Your task to perform on an android device: toggle javascript in the chrome app Image 0: 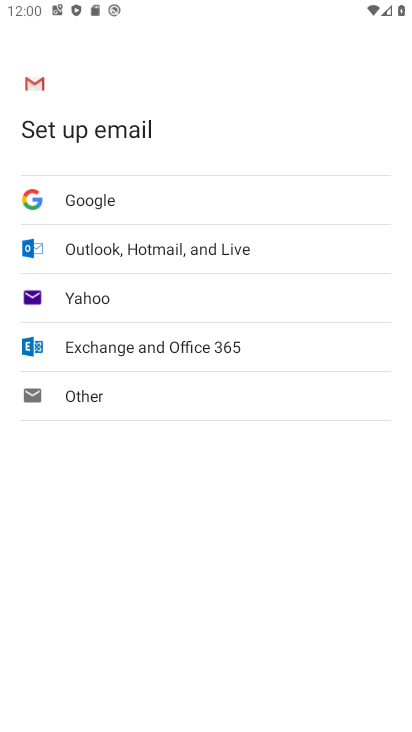
Step 0: press home button
Your task to perform on an android device: toggle javascript in the chrome app Image 1: 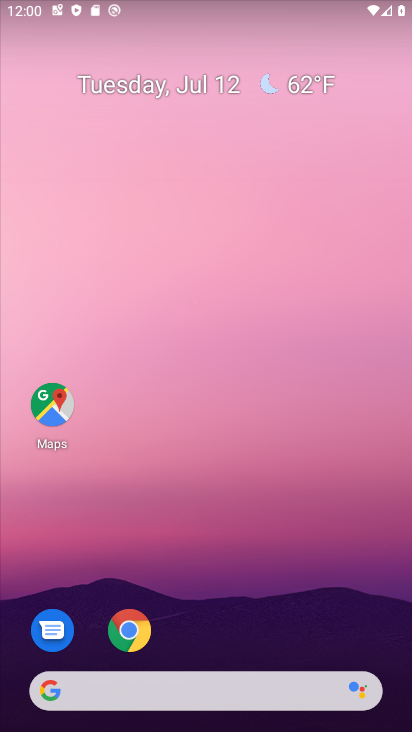
Step 1: drag from (276, 688) to (368, 0)
Your task to perform on an android device: toggle javascript in the chrome app Image 2: 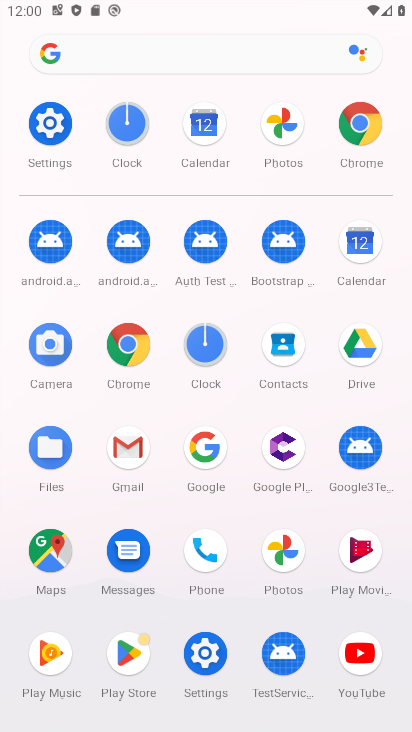
Step 2: click (140, 342)
Your task to perform on an android device: toggle javascript in the chrome app Image 3: 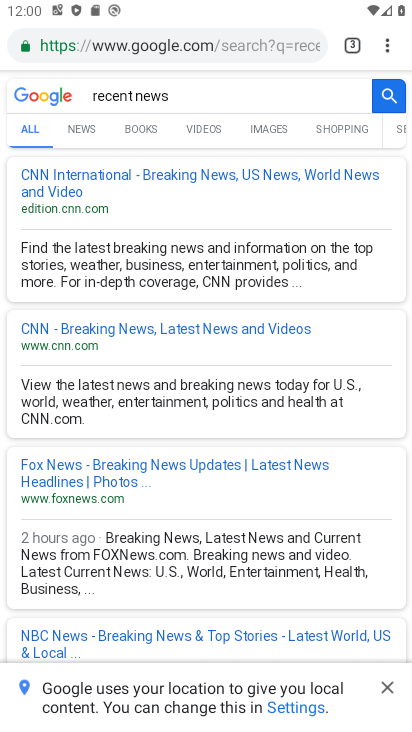
Step 3: drag from (388, 50) to (253, 505)
Your task to perform on an android device: toggle javascript in the chrome app Image 4: 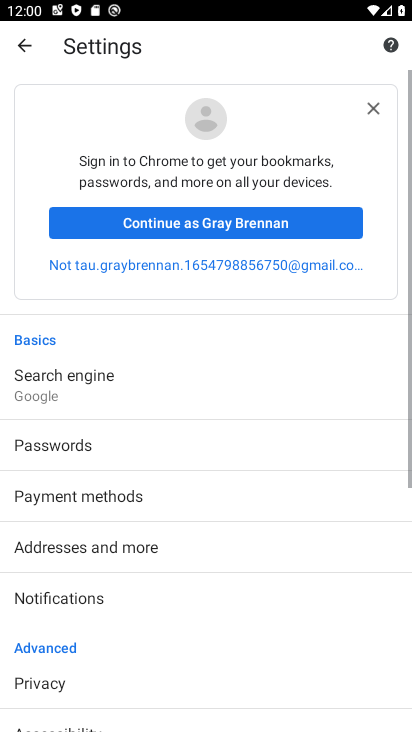
Step 4: drag from (94, 681) to (199, 148)
Your task to perform on an android device: toggle javascript in the chrome app Image 5: 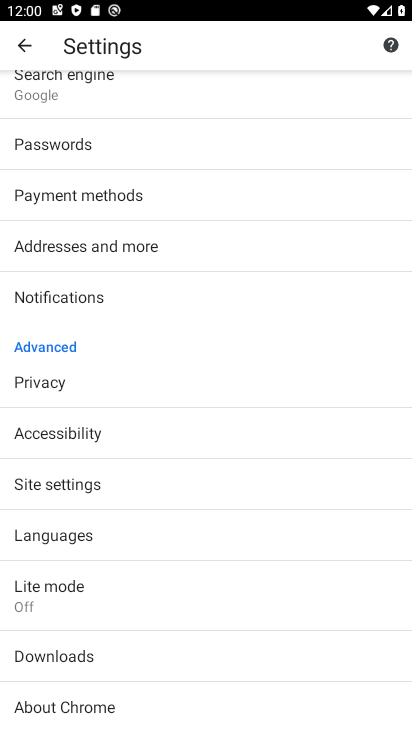
Step 5: click (92, 487)
Your task to perform on an android device: toggle javascript in the chrome app Image 6: 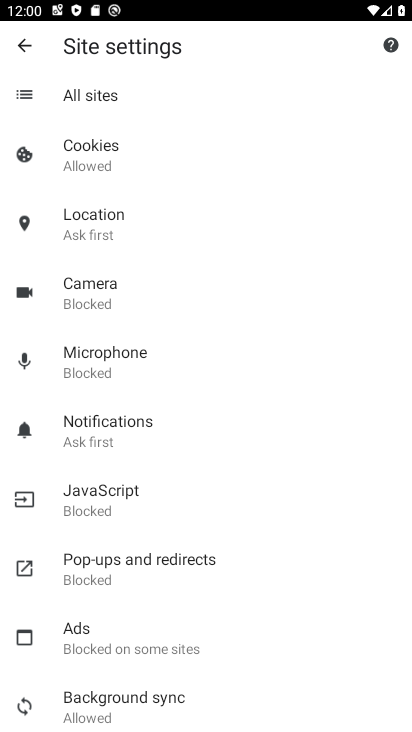
Step 6: click (129, 505)
Your task to perform on an android device: toggle javascript in the chrome app Image 7: 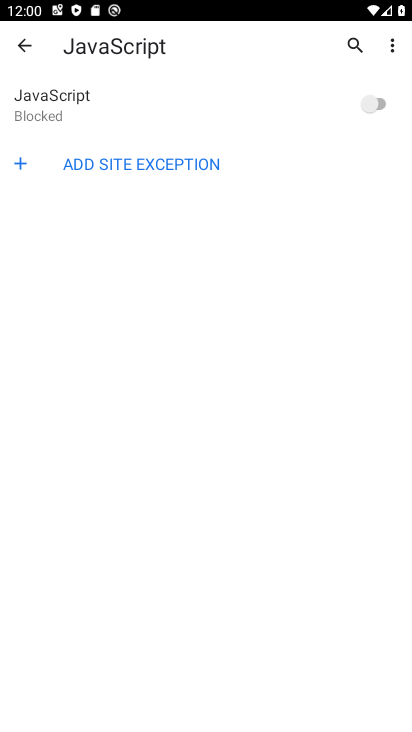
Step 7: click (377, 101)
Your task to perform on an android device: toggle javascript in the chrome app Image 8: 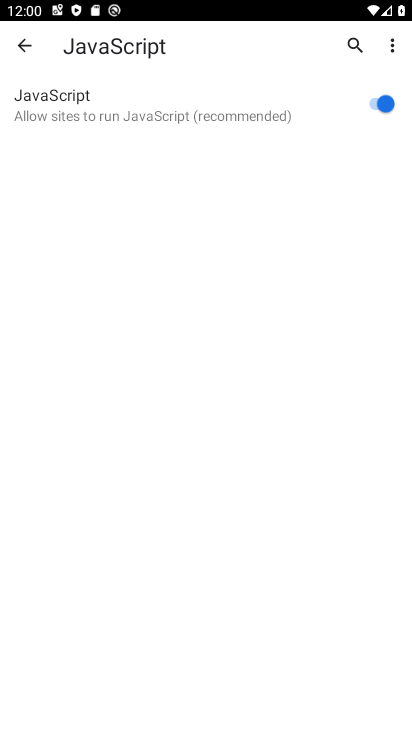
Step 8: task complete